Your task to perform on an android device: set default search engine in the chrome app Image 0: 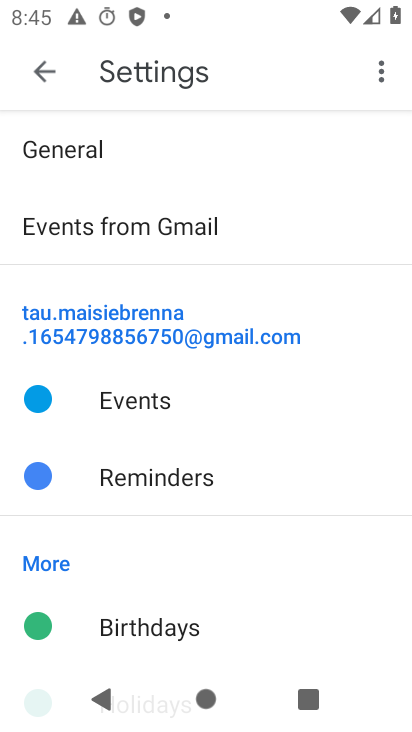
Step 0: press home button
Your task to perform on an android device: set default search engine in the chrome app Image 1: 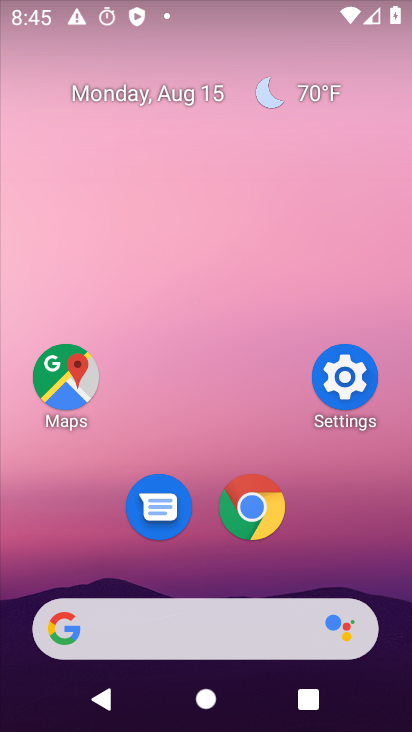
Step 1: click (255, 511)
Your task to perform on an android device: set default search engine in the chrome app Image 2: 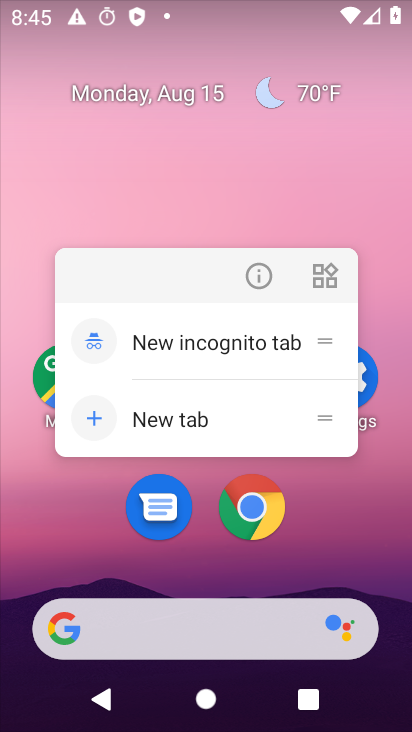
Step 2: click (255, 511)
Your task to perform on an android device: set default search engine in the chrome app Image 3: 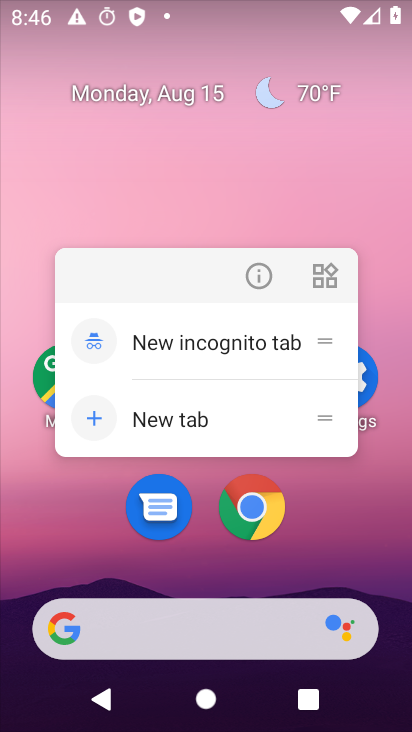
Step 3: click (255, 511)
Your task to perform on an android device: set default search engine in the chrome app Image 4: 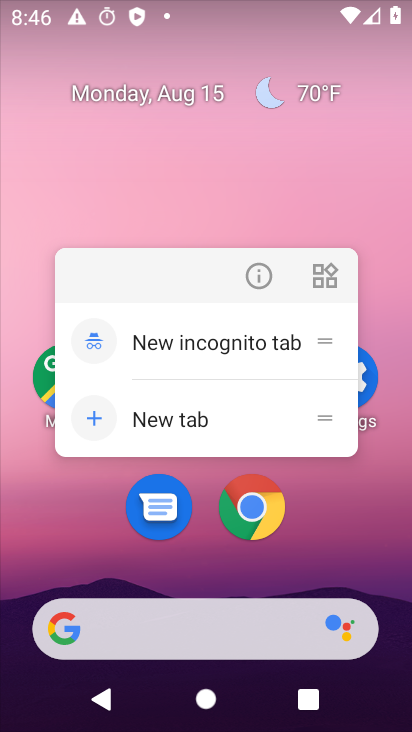
Step 4: click (255, 511)
Your task to perform on an android device: set default search engine in the chrome app Image 5: 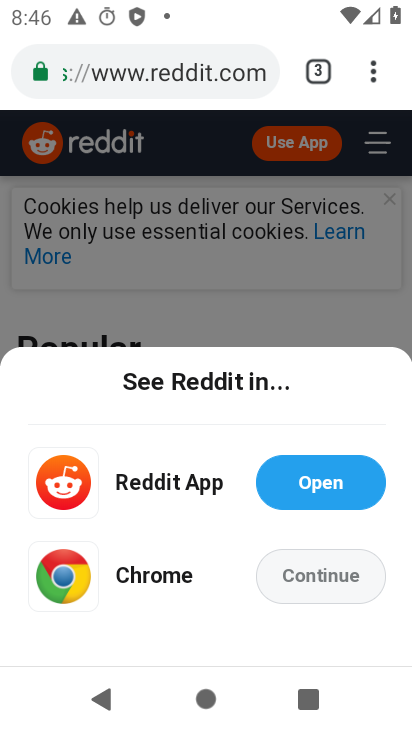
Step 5: drag from (376, 73) to (229, 506)
Your task to perform on an android device: set default search engine in the chrome app Image 6: 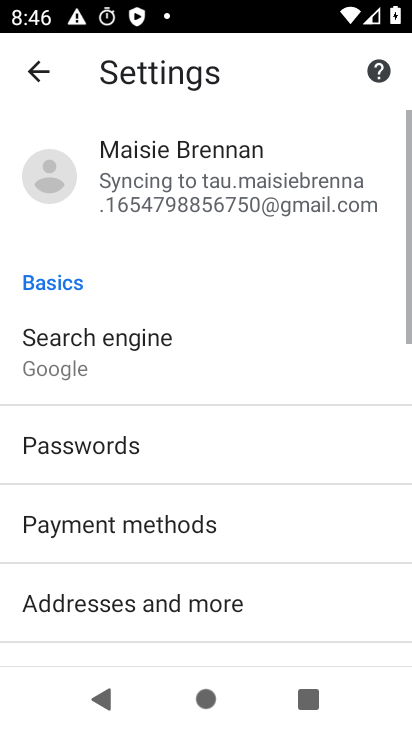
Step 6: click (130, 355)
Your task to perform on an android device: set default search engine in the chrome app Image 7: 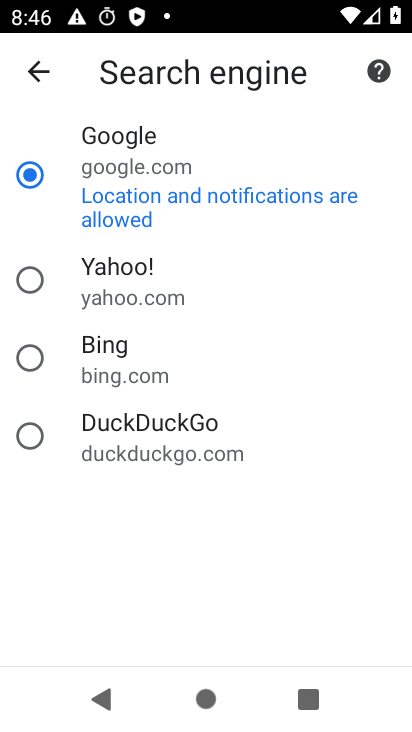
Step 7: click (33, 280)
Your task to perform on an android device: set default search engine in the chrome app Image 8: 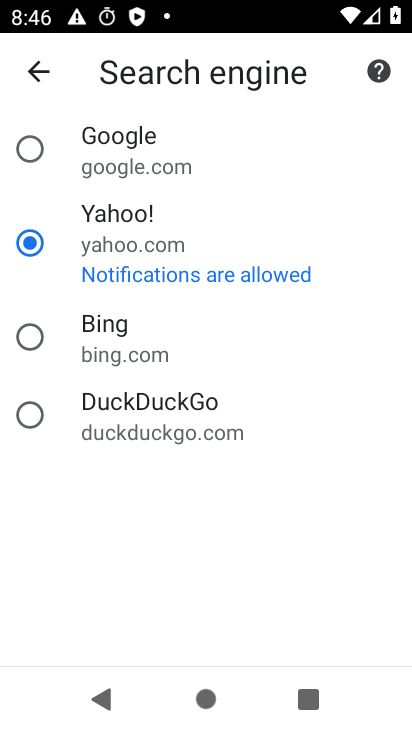
Step 8: task complete